Your task to perform on an android device: check the backup settings in the google photos Image 0: 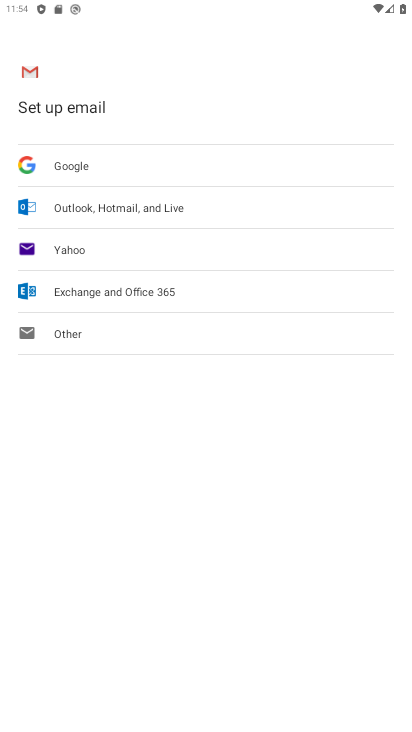
Step 0: press home button
Your task to perform on an android device: check the backup settings in the google photos Image 1: 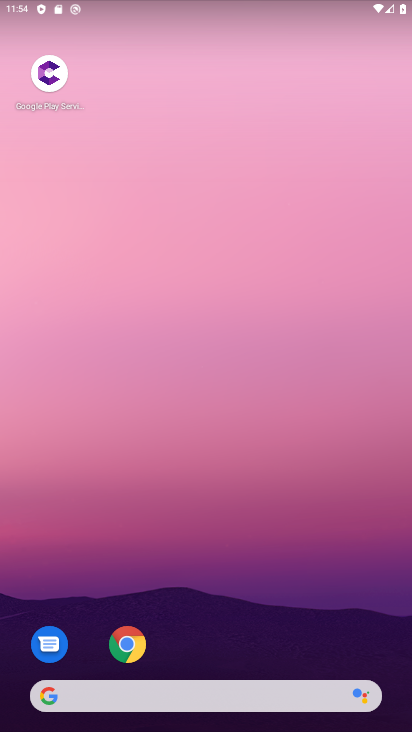
Step 1: drag from (200, 725) to (188, 340)
Your task to perform on an android device: check the backup settings in the google photos Image 2: 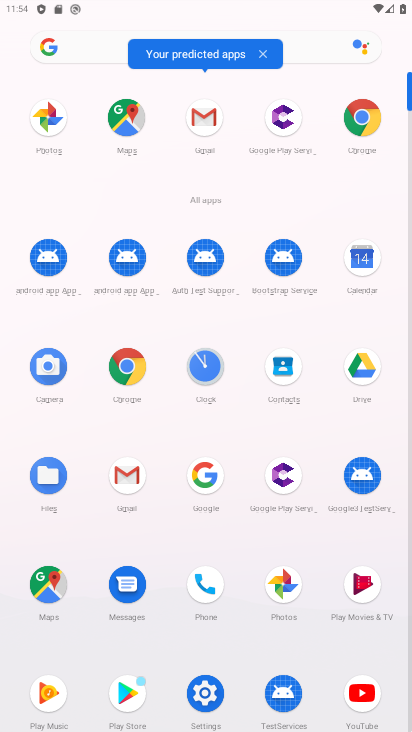
Step 2: click (287, 575)
Your task to perform on an android device: check the backup settings in the google photos Image 3: 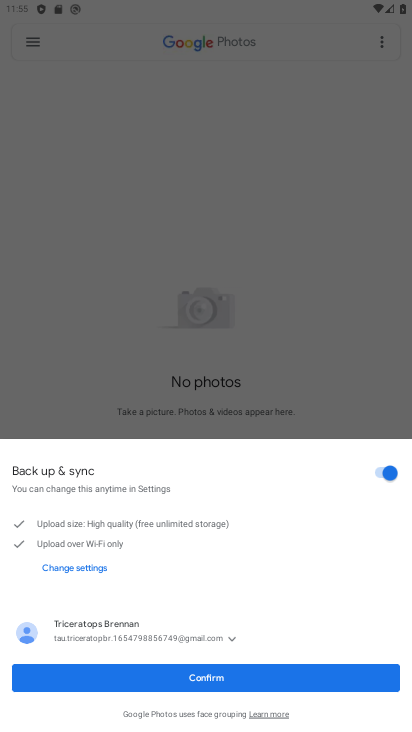
Step 3: click (206, 676)
Your task to perform on an android device: check the backup settings in the google photos Image 4: 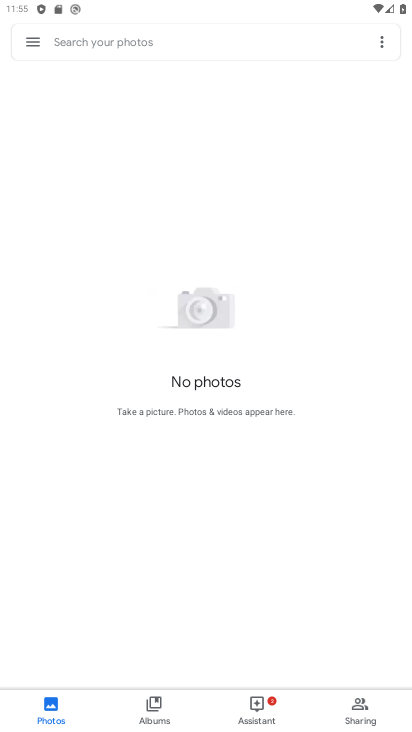
Step 4: click (39, 45)
Your task to perform on an android device: check the backup settings in the google photos Image 5: 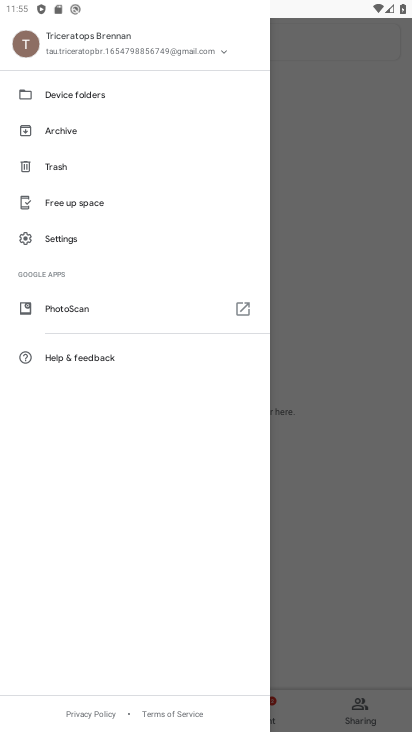
Step 5: click (66, 238)
Your task to perform on an android device: check the backup settings in the google photos Image 6: 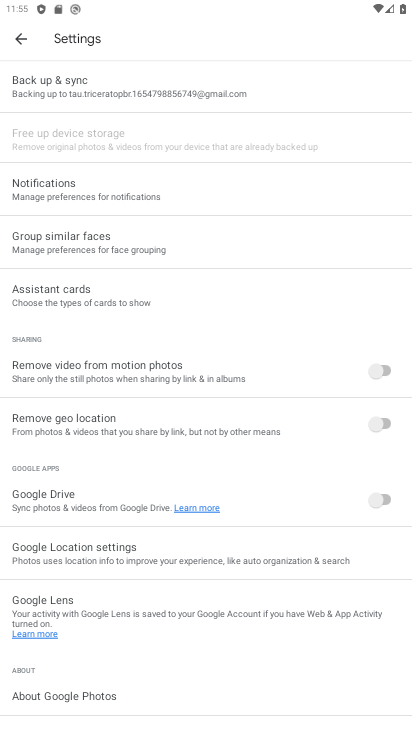
Step 6: click (44, 89)
Your task to perform on an android device: check the backup settings in the google photos Image 7: 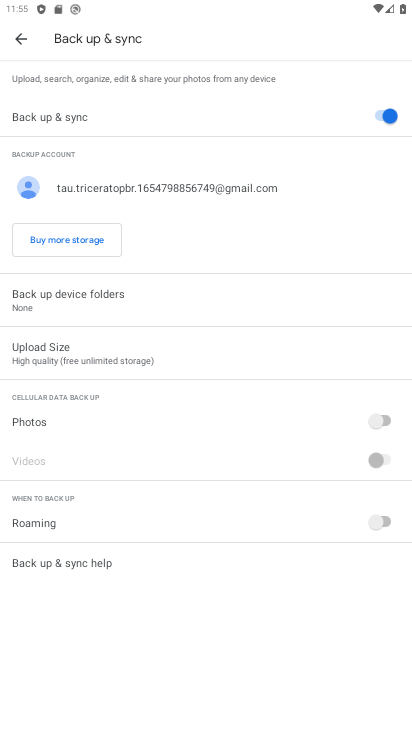
Step 7: task complete